Your task to perform on an android device: Open the Play Movies app and select the watchlist tab. Image 0: 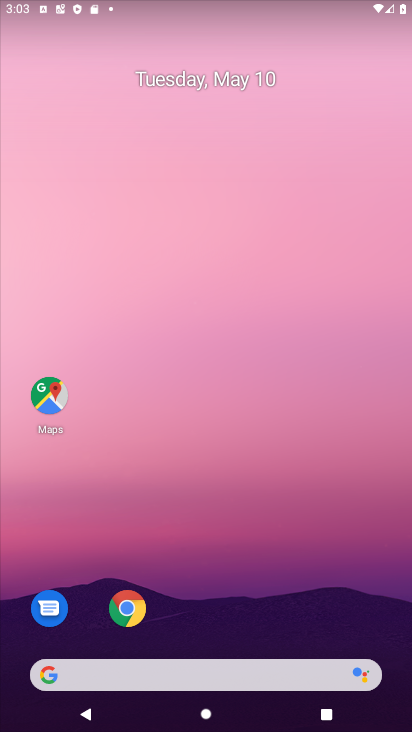
Step 0: drag from (388, 618) to (250, 181)
Your task to perform on an android device: Open the Play Movies app and select the watchlist tab. Image 1: 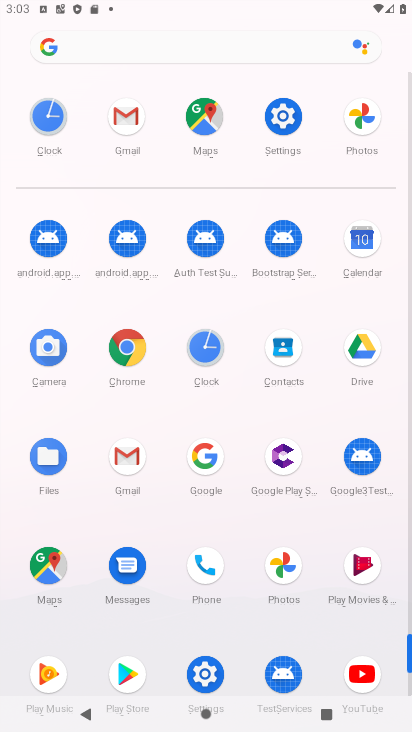
Step 1: click (360, 560)
Your task to perform on an android device: Open the Play Movies app and select the watchlist tab. Image 2: 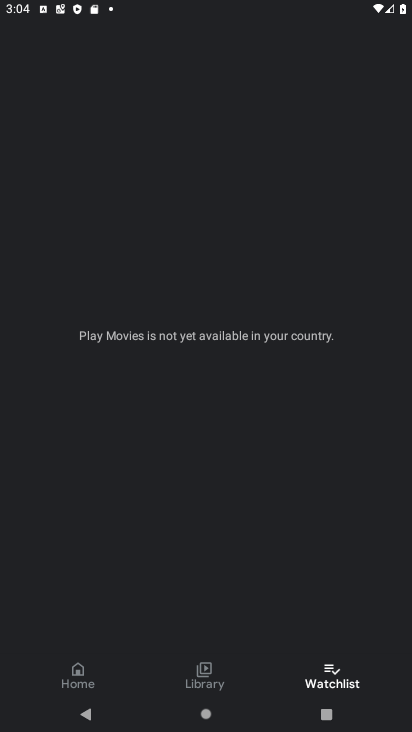
Step 2: task complete